Your task to perform on an android device: turn on improve location accuracy Image 0: 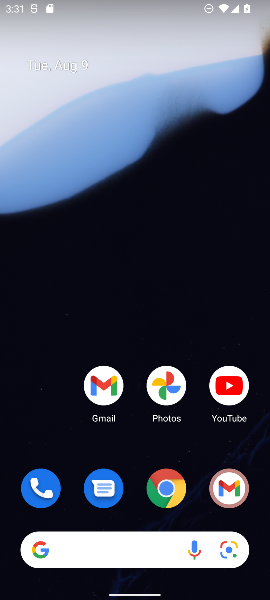
Step 0: drag from (201, 457) to (169, 55)
Your task to perform on an android device: turn on improve location accuracy Image 1: 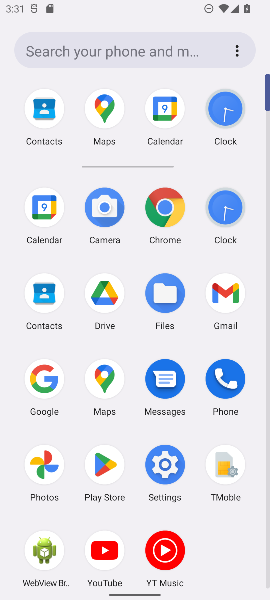
Step 1: click (173, 467)
Your task to perform on an android device: turn on improve location accuracy Image 2: 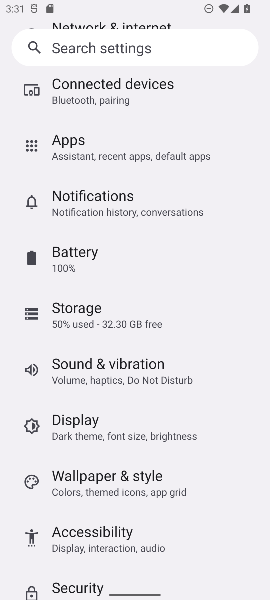
Step 2: drag from (195, 542) to (164, 148)
Your task to perform on an android device: turn on improve location accuracy Image 3: 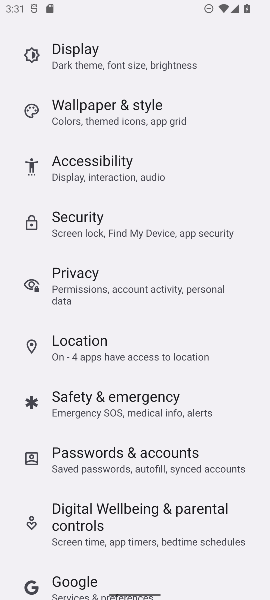
Step 3: click (90, 367)
Your task to perform on an android device: turn on improve location accuracy Image 4: 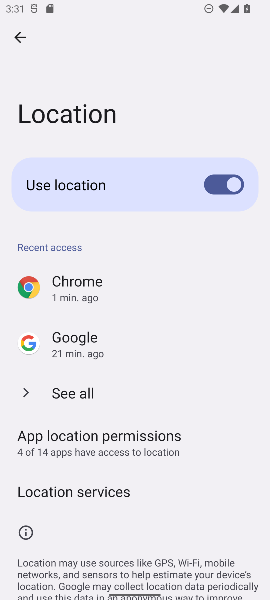
Step 4: click (169, 487)
Your task to perform on an android device: turn on improve location accuracy Image 5: 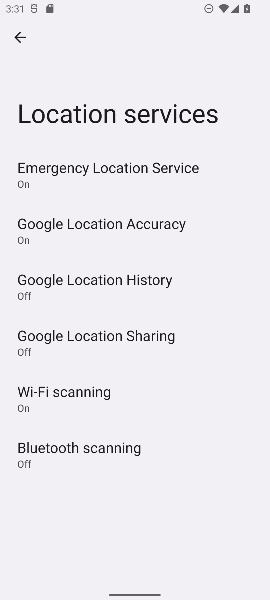
Step 5: click (194, 227)
Your task to perform on an android device: turn on improve location accuracy Image 6: 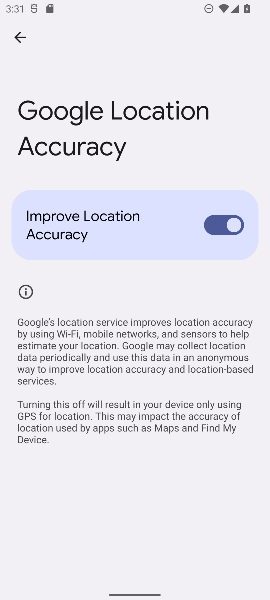
Step 6: task complete